Your task to perform on an android device: Go to Maps Image 0: 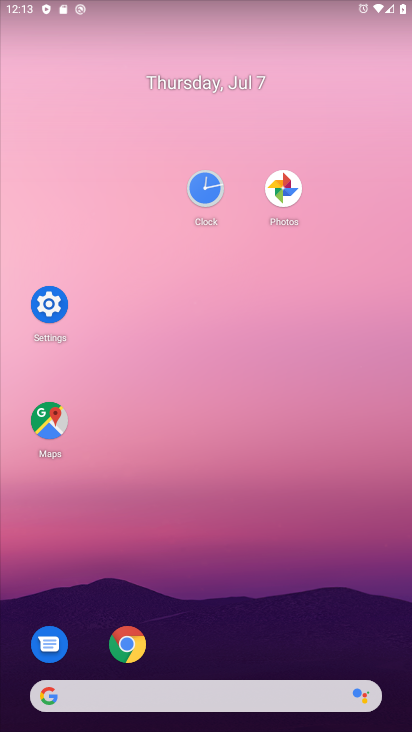
Step 0: click (48, 412)
Your task to perform on an android device: Go to Maps Image 1: 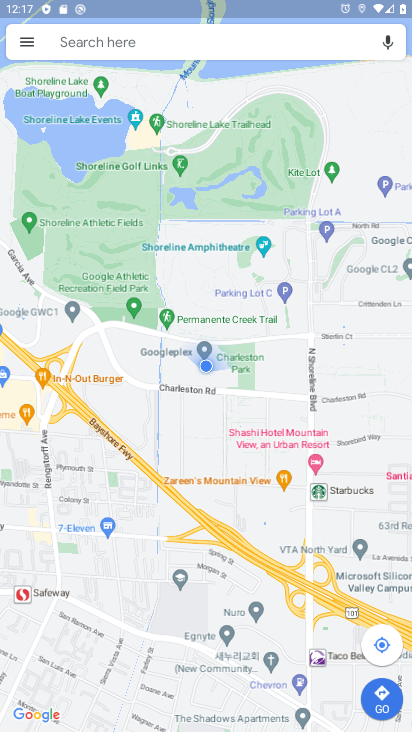
Step 1: task complete